Your task to perform on an android device: turn on data saver in the chrome app Image 0: 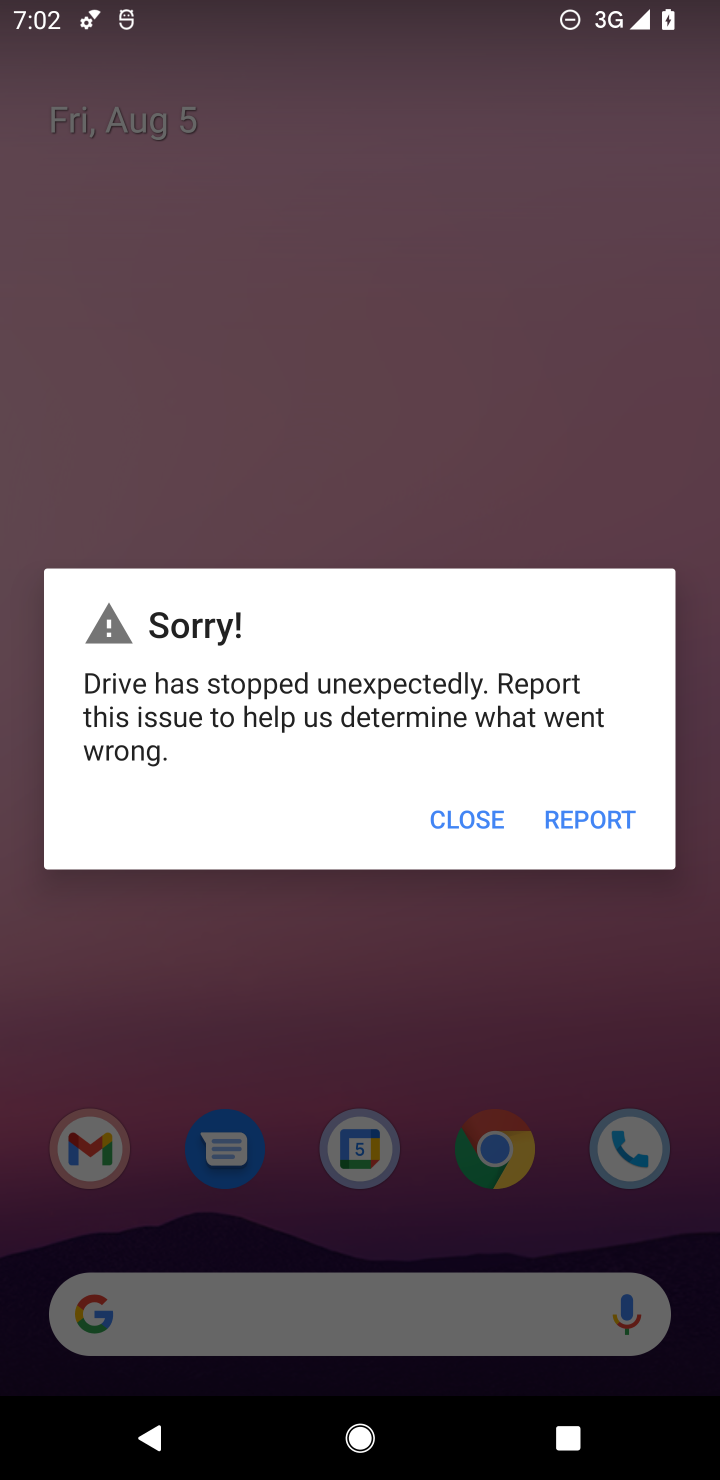
Step 0: click (445, 807)
Your task to perform on an android device: turn on data saver in the chrome app Image 1: 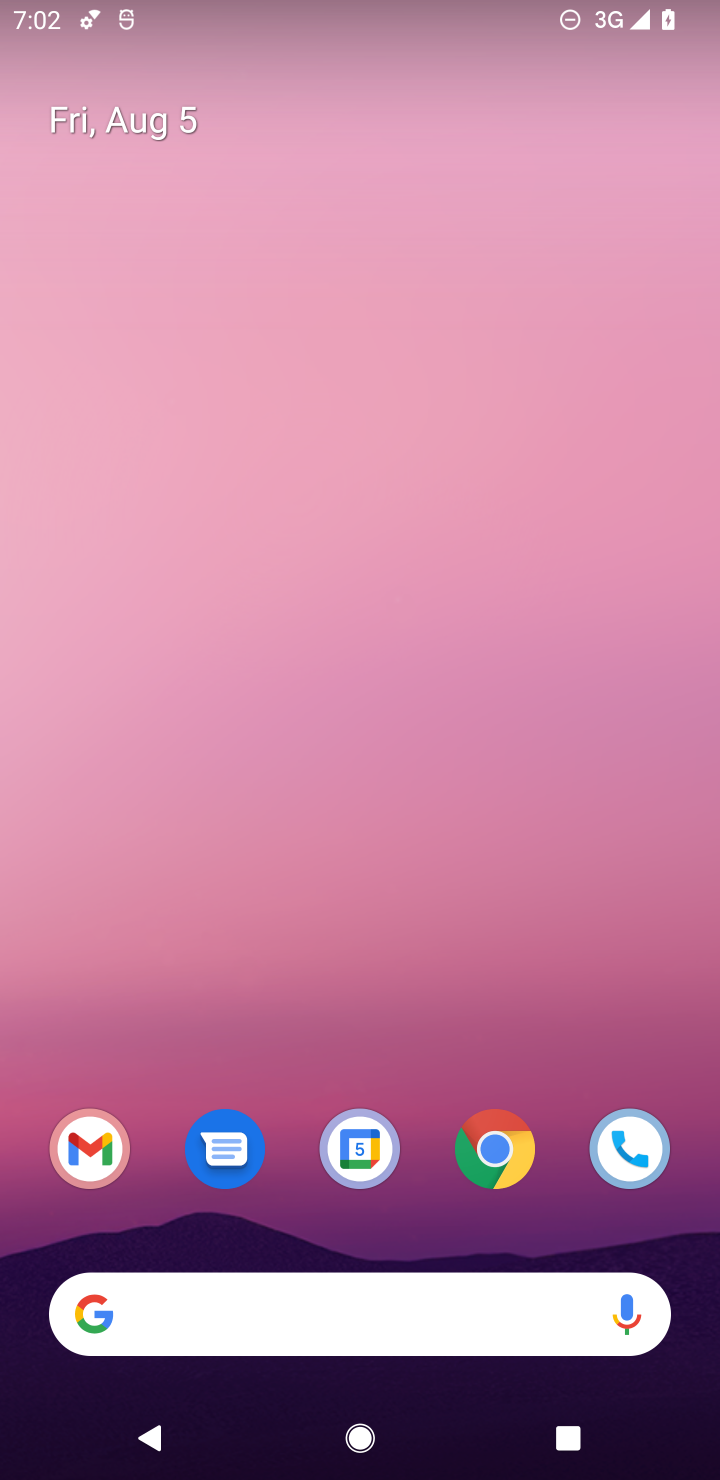
Step 1: click (476, 1151)
Your task to perform on an android device: turn on data saver in the chrome app Image 2: 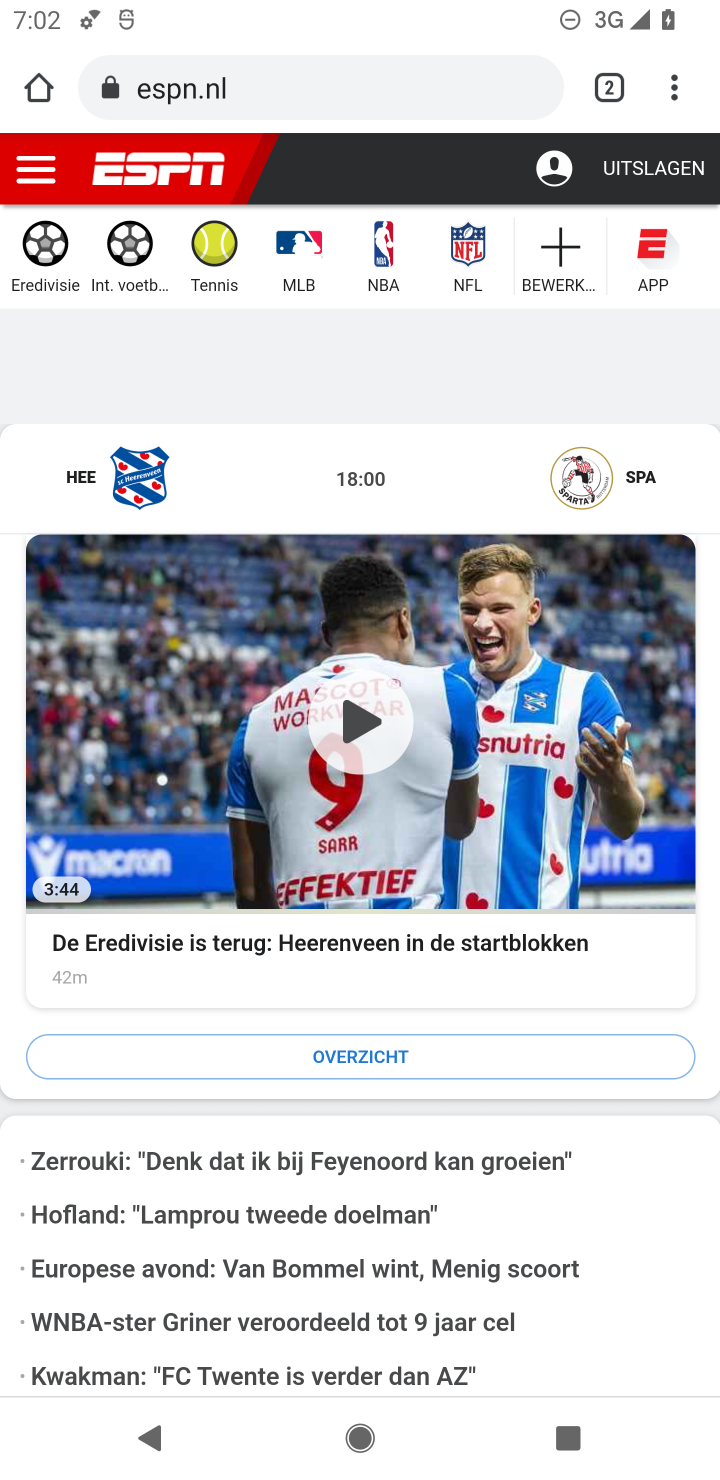
Step 2: click (667, 88)
Your task to perform on an android device: turn on data saver in the chrome app Image 3: 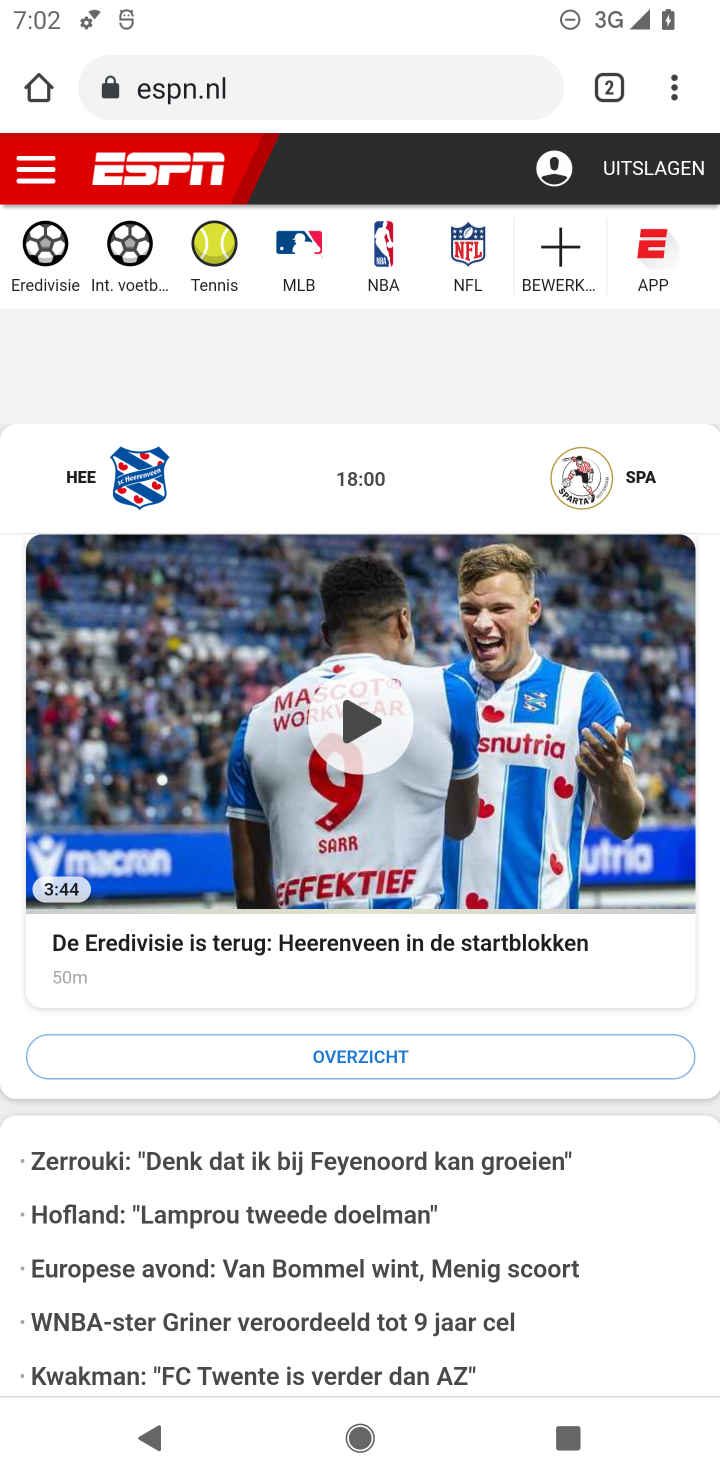
Step 3: click (671, 89)
Your task to perform on an android device: turn on data saver in the chrome app Image 4: 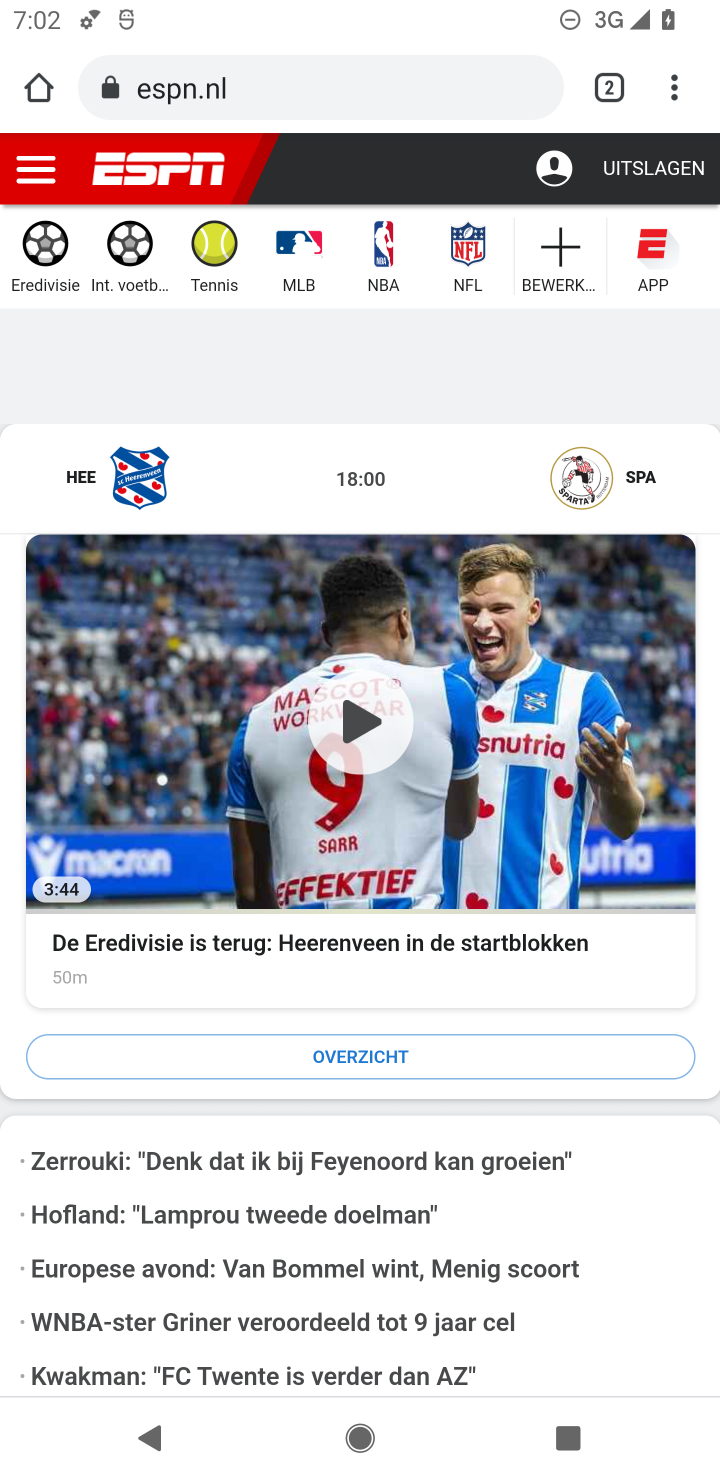
Step 4: click (674, 77)
Your task to perform on an android device: turn on data saver in the chrome app Image 5: 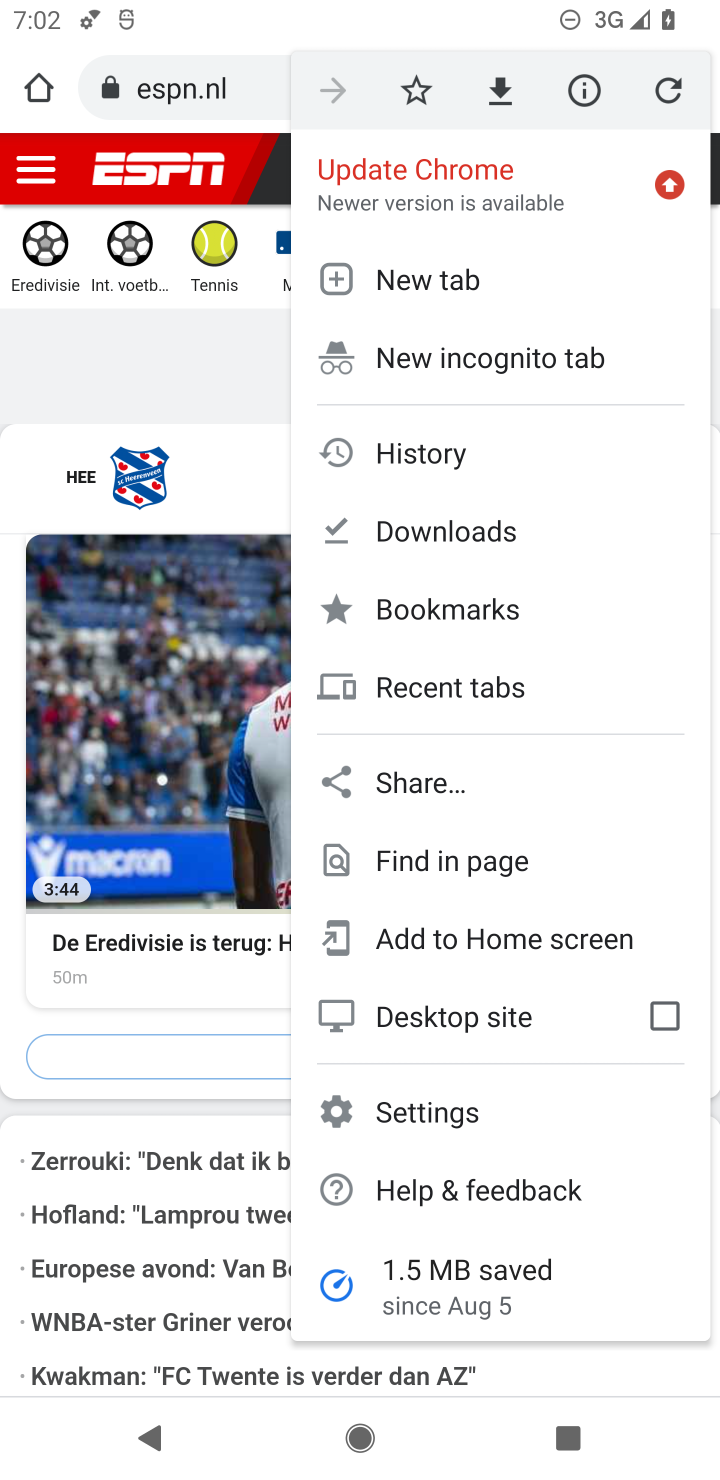
Step 5: click (487, 1127)
Your task to perform on an android device: turn on data saver in the chrome app Image 6: 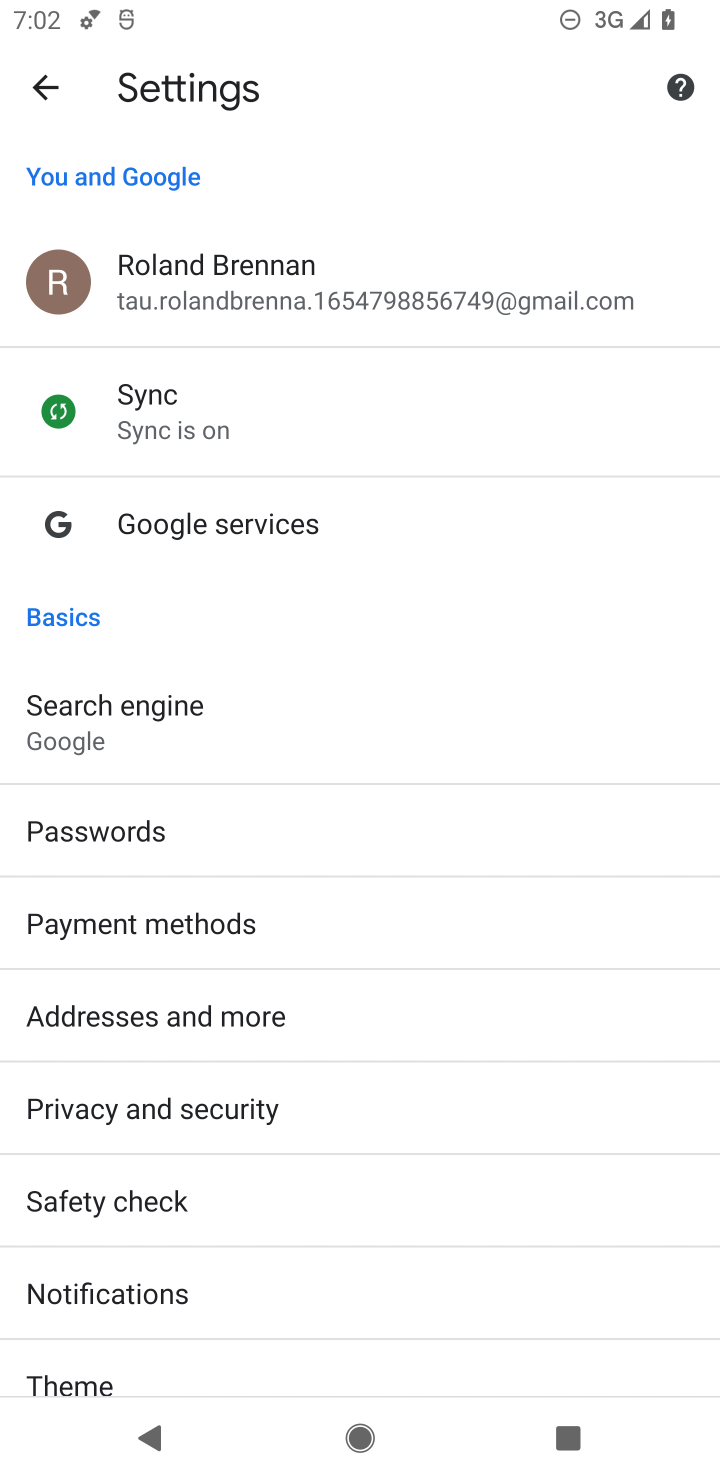
Step 6: drag from (538, 736) to (347, 201)
Your task to perform on an android device: turn on data saver in the chrome app Image 7: 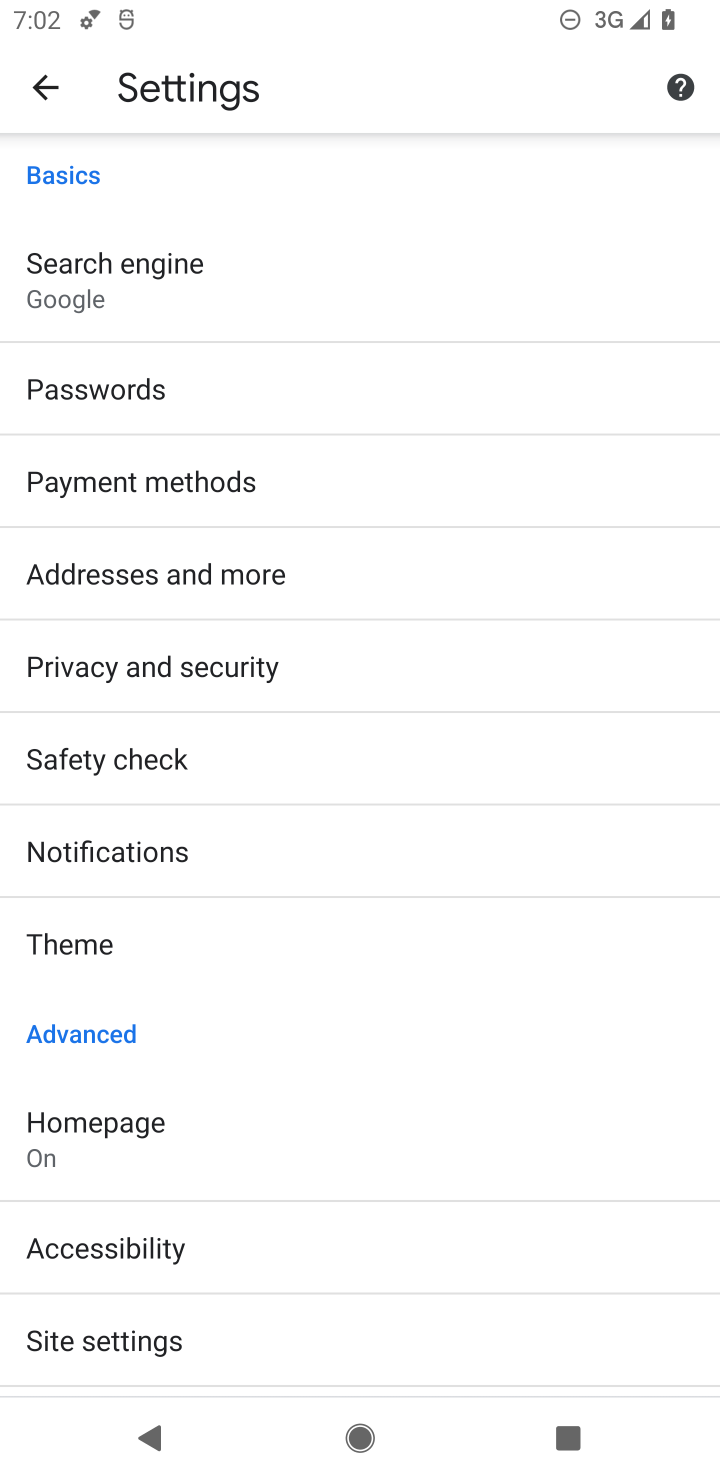
Step 7: drag from (332, 1016) to (291, 644)
Your task to perform on an android device: turn on data saver in the chrome app Image 8: 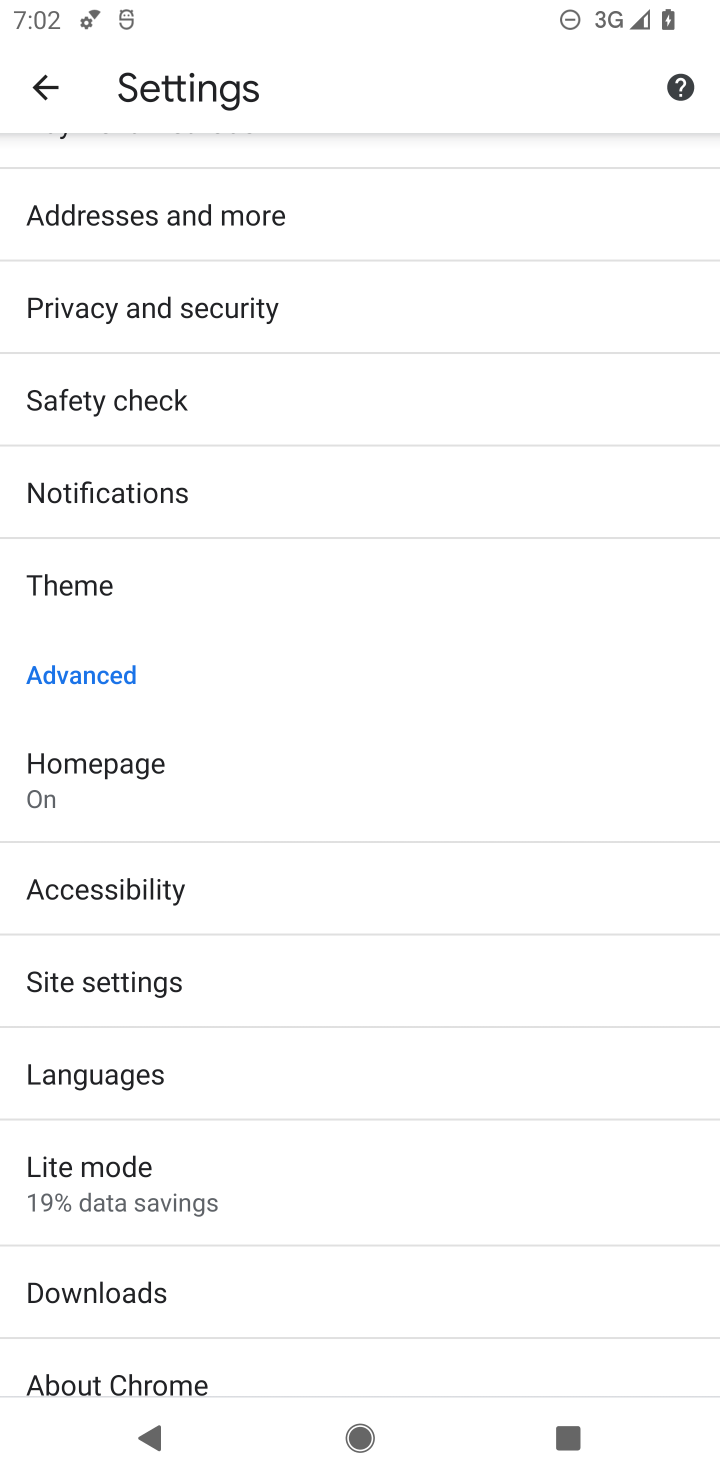
Step 8: click (190, 1192)
Your task to perform on an android device: turn on data saver in the chrome app Image 9: 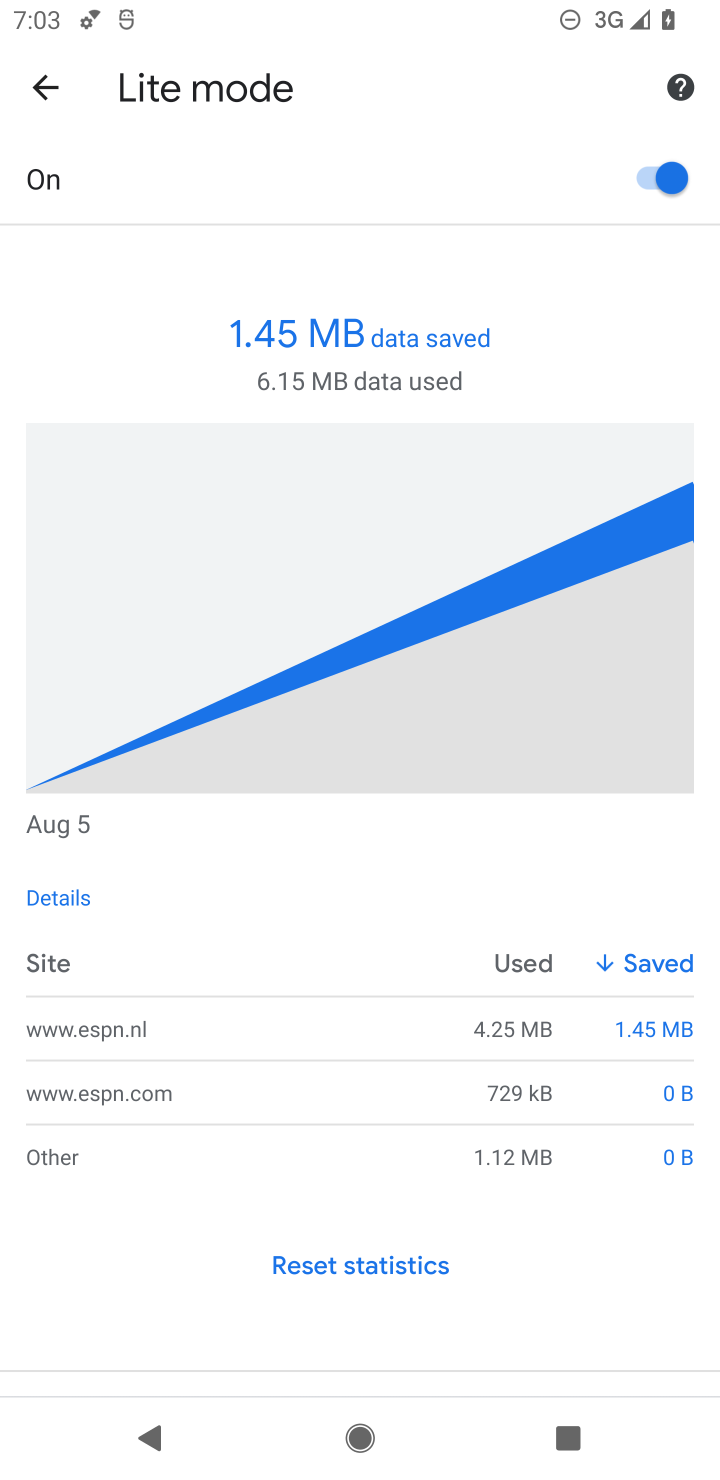
Step 9: task complete